Your task to perform on an android device: turn on wifi Image 0: 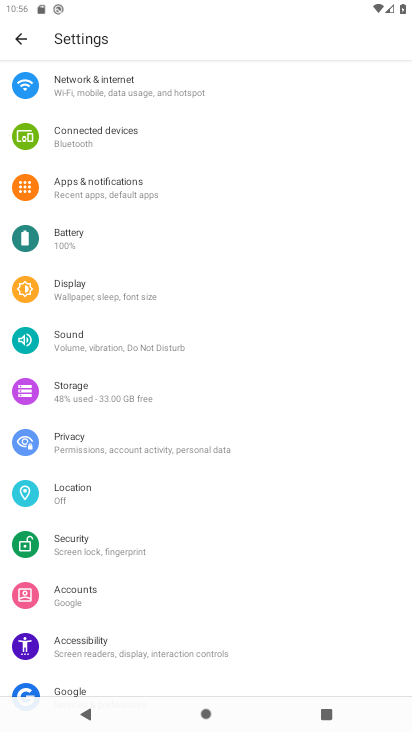
Step 0: press home button
Your task to perform on an android device: turn on wifi Image 1: 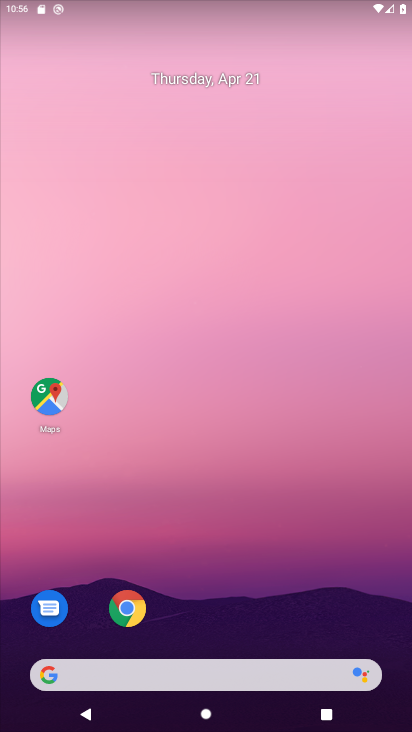
Step 1: drag from (177, 532) to (199, 153)
Your task to perform on an android device: turn on wifi Image 2: 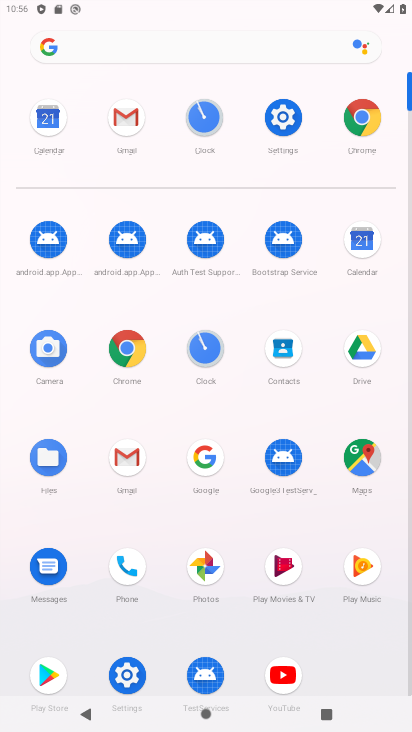
Step 2: click (281, 115)
Your task to perform on an android device: turn on wifi Image 3: 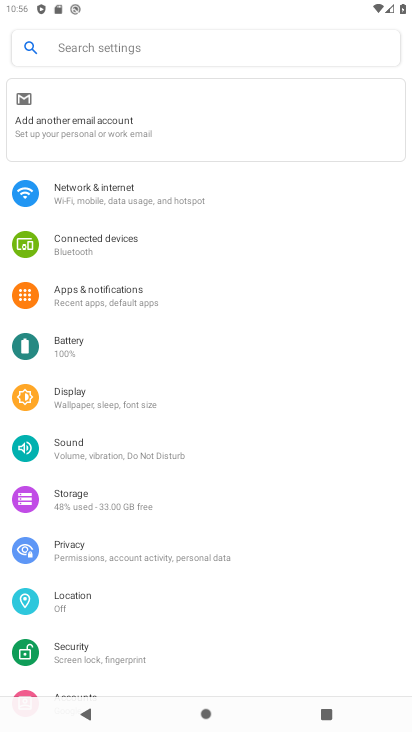
Step 3: click (149, 184)
Your task to perform on an android device: turn on wifi Image 4: 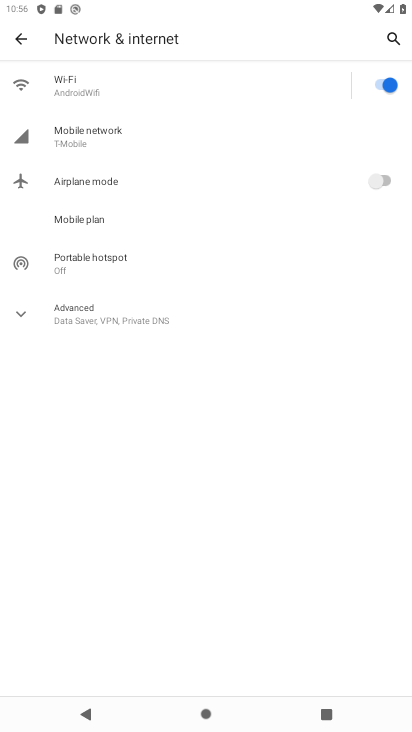
Step 4: task complete